Your task to perform on an android device: Search for seafood restaurants on Google Maps Image 0: 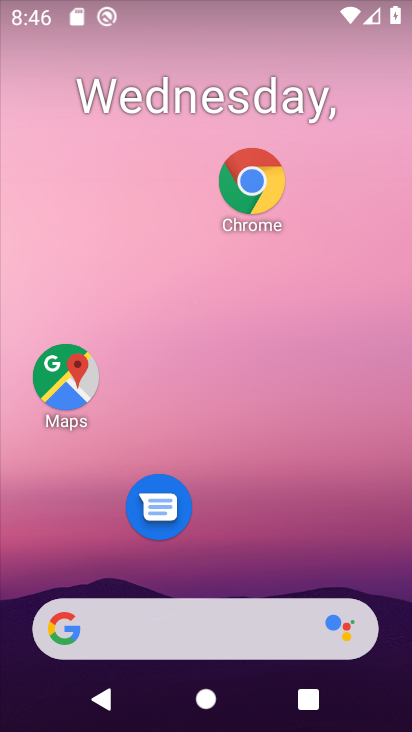
Step 0: drag from (296, 568) to (283, 196)
Your task to perform on an android device: Search for seafood restaurants on Google Maps Image 1: 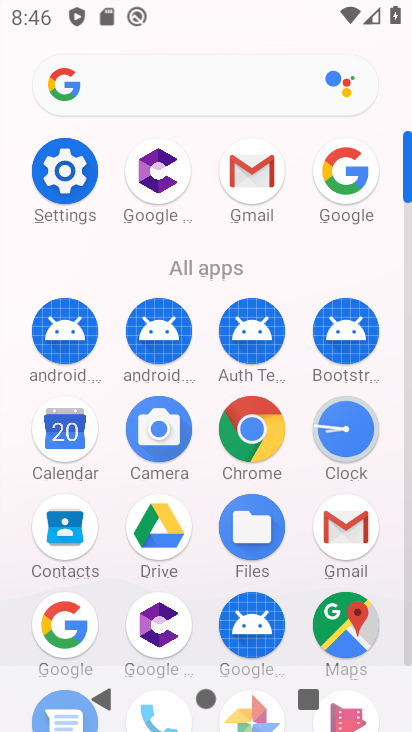
Step 1: click (346, 625)
Your task to perform on an android device: Search for seafood restaurants on Google Maps Image 2: 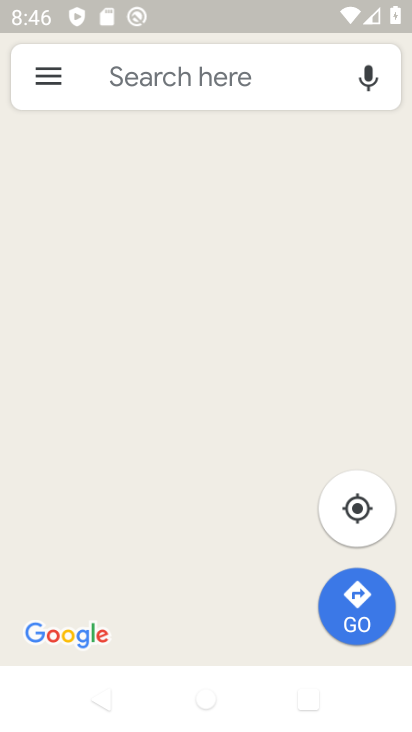
Step 2: click (203, 93)
Your task to perform on an android device: Search for seafood restaurants on Google Maps Image 3: 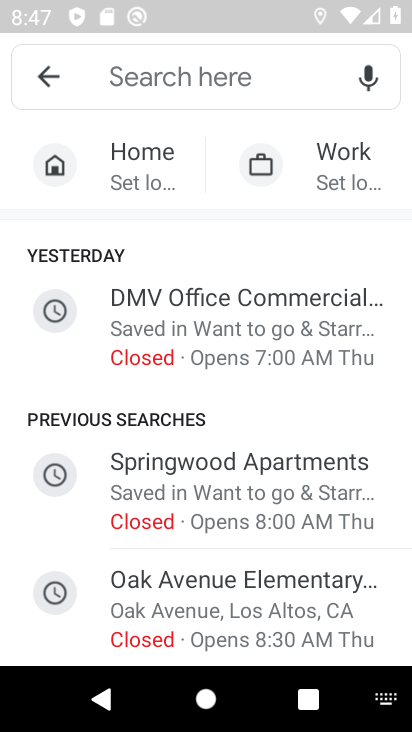
Step 3: type "seafood restaurants"
Your task to perform on an android device: Search for seafood restaurants on Google Maps Image 4: 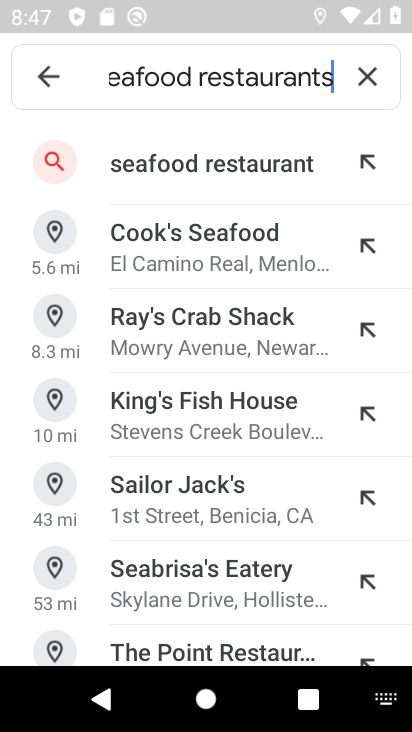
Step 4: click (261, 173)
Your task to perform on an android device: Search for seafood restaurants on Google Maps Image 5: 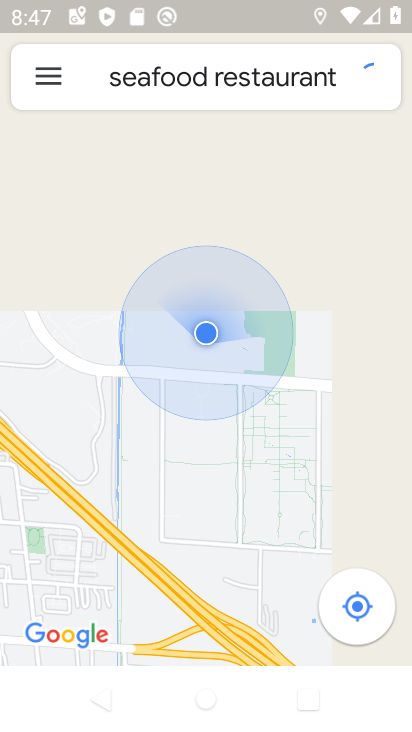
Step 5: task complete